Your task to perform on an android device: Open Google Image 0: 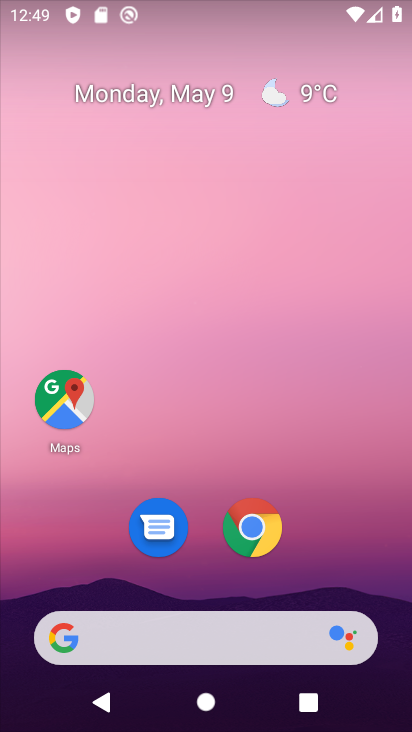
Step 0: click (226, 646)
Your task to perform on an android device: Open Google Image 1: 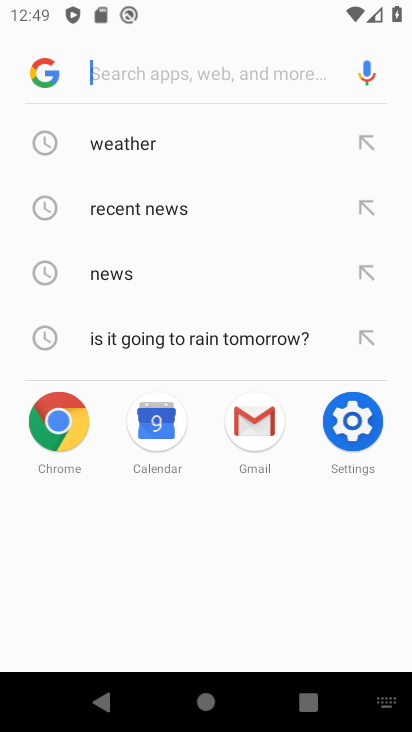
Step 1: click (55, 65)
Your task to perform on an android device: Open Google Image 2: 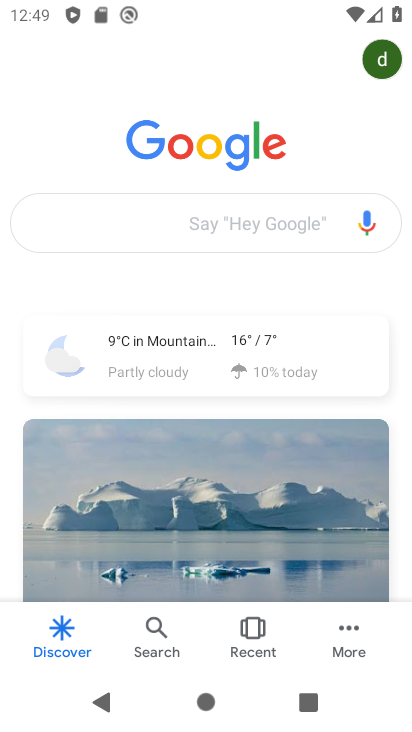
Step 2: task complete